Your task to perform on an android device: find photos in the google photos app Image 0: 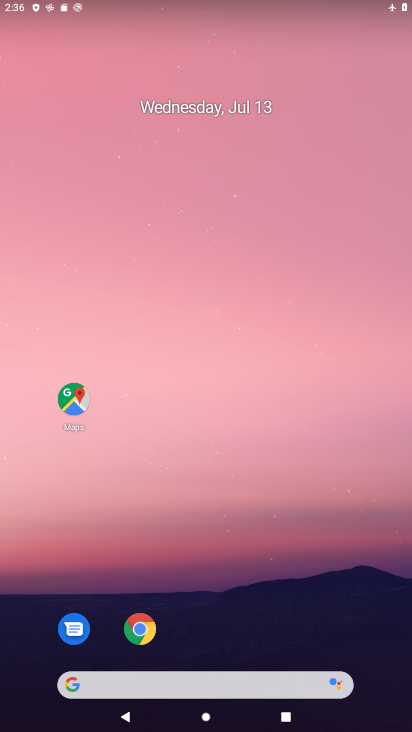
Step 0: drag from (267, 630) to (244, 55)
Your task to perform on an android device: find photos in the google photos app Image 1: 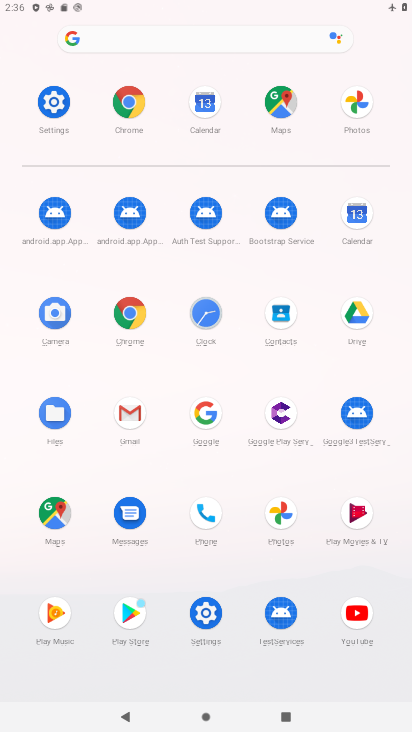
Step 1: click (362, 125)
Your task to perform on an android device: find photos in the google photos app Image 2: 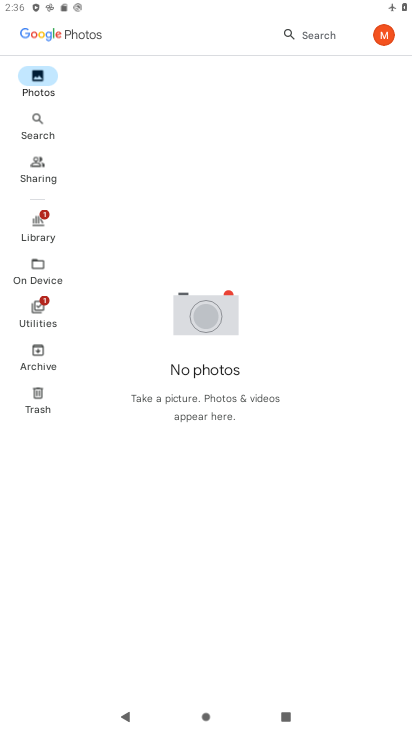
Step 2: task complete